Your task to perform on an android device: Open privacy settings Image 0: 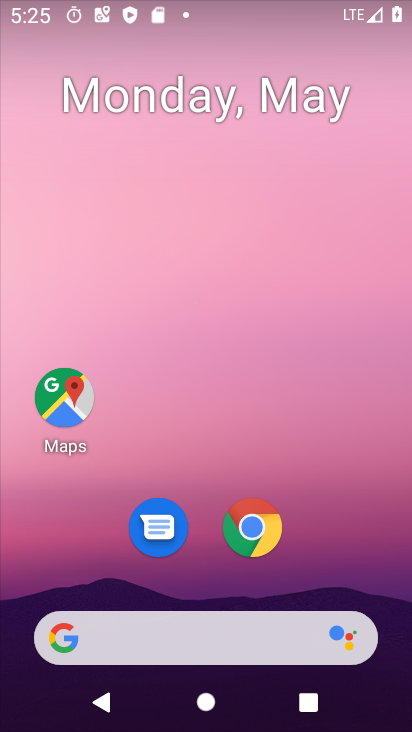
Step 0: click (251, 519)
Your task to perform on an android device: Open privacy settings Image 1: 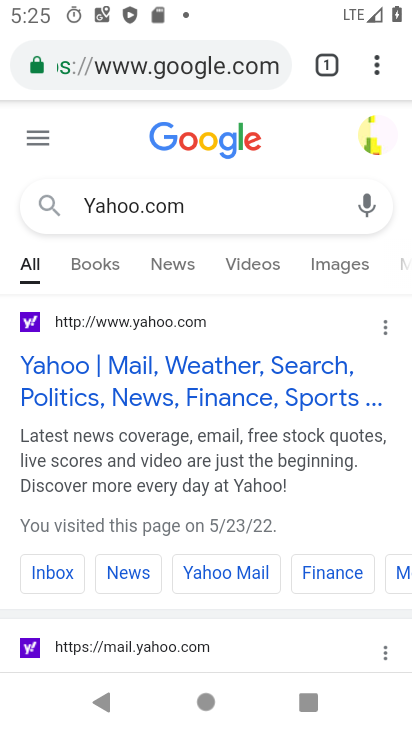
Step 1: click (375, 59)
Your task to perform on an android device: Open privacy settings Image 2: 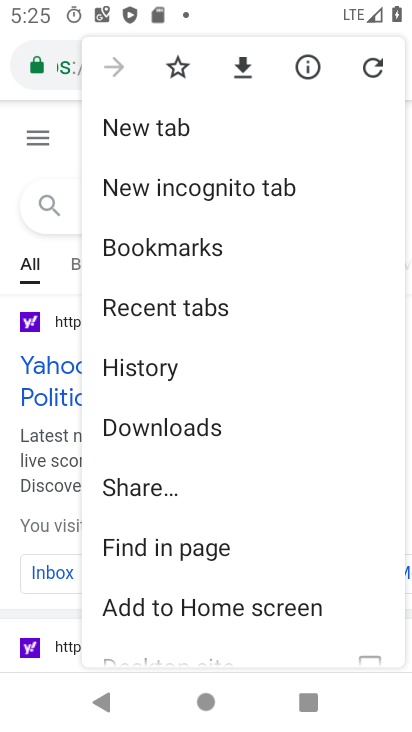
Step 2: drag from (343, 633) to (317, 273)
Your task to perform on an android device: Open privacy settings Image 3: 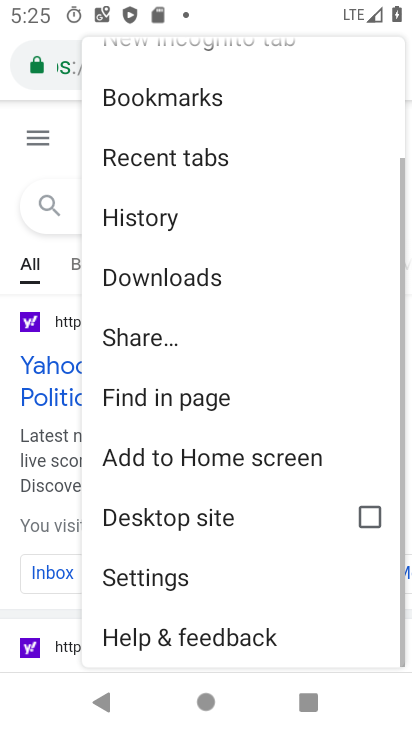
Step 3: click (158, 573)
Your task to perform on an android device: Open privacy settings Image 4: 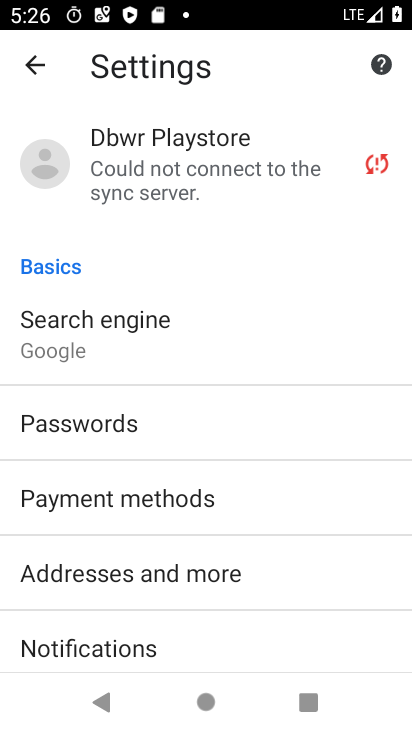
Step 4: drag from (305, 641) to (284, 280)
Your task to perform on an android device: Open privacy settings Image 5: 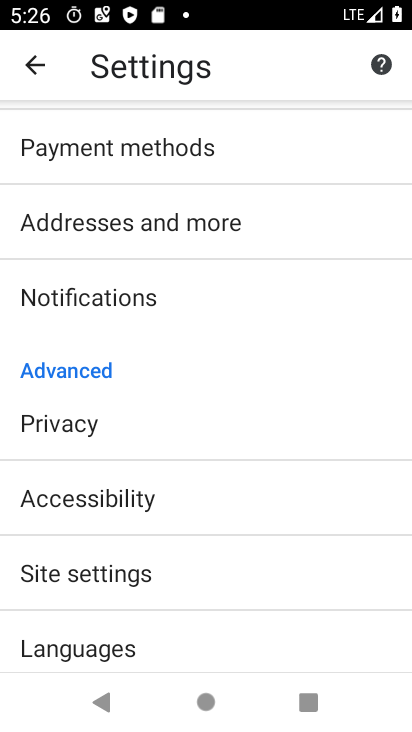
Step 5: click (70, 425)
Your task to perform on an android device: Open privacy settings Image 6: 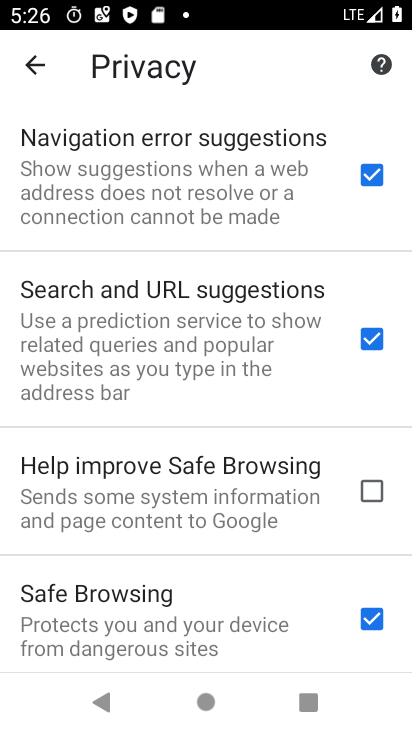
Step 6: task complete